Your task to perform on an android device: Open Google Chrome and click the shortcut for Amazon.com Image 0: 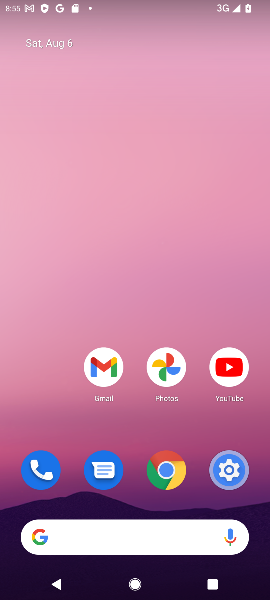
Step 0: drag from (199, 474) to (187, 205)
Your task to perform on an android device: Open Google Chrome and click the shortcut for Amazon.com Image 1: 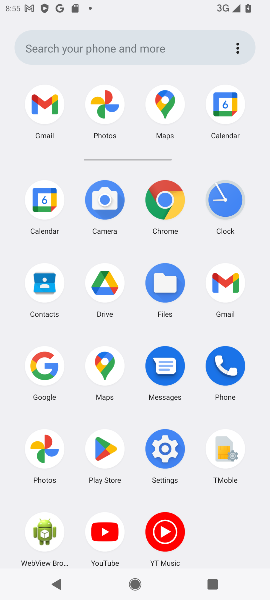
Step 1: click (166, 221)
Your task to perform on an android device: Open Google Chrome and click the shortcut for Amazon.com Image 2: 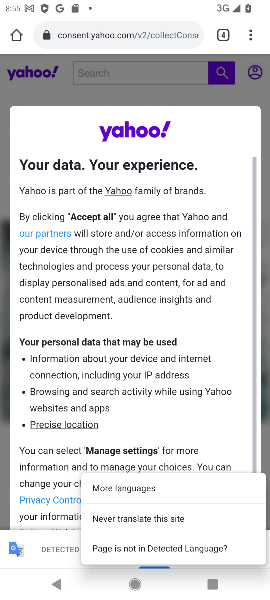
Step 2: click (250, 40)
Your task to perform on an android device: Open Google Chrome and click the shortcut for Amazon.com Image 3: 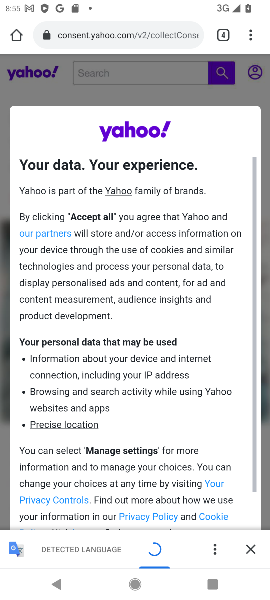
Step 3: drag from (225, 40) to (229, 329)
Your task to perform on an android device: Open Google Chrome and click the shortcut for Amazon.com Image 4: 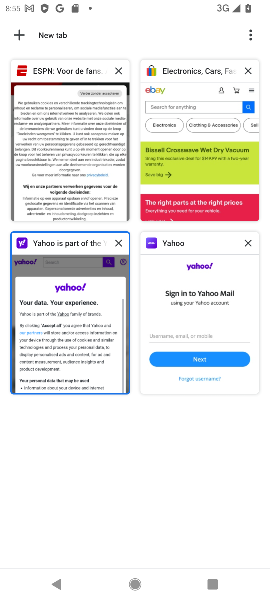
Step 4: click (24, 38)
Your task to perform on an android device: Open Google Chrome and click the shortcut for Amazon.com Image 5: 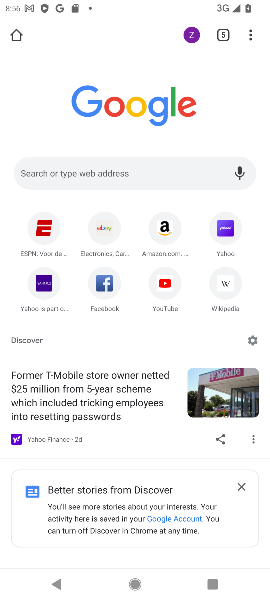
Step 5: click (161, 242)
Your task to perform on an android device: Open Google Chrome and click the shortcut for Amazon.com Image 6: 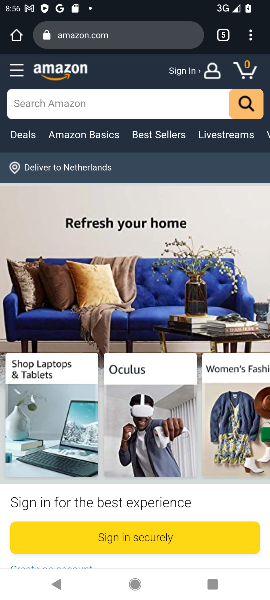
Step 6: task complete